Your task to perform on an android device: turn off location history Image 0: 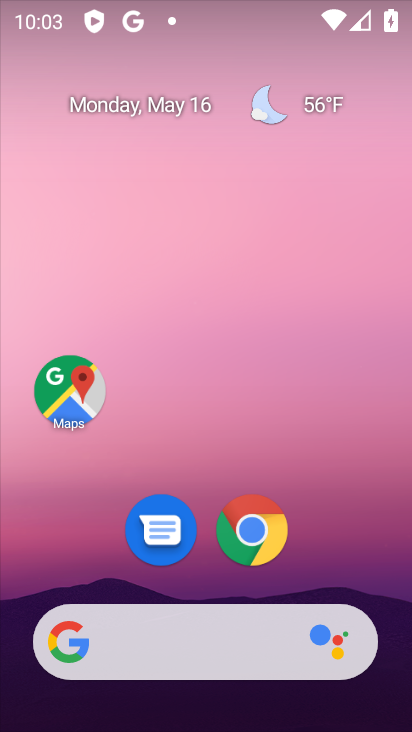
Step 0: drag from (335, 505) to (347, 156)
Your task to perform on an android device: turn off location history Image 1: 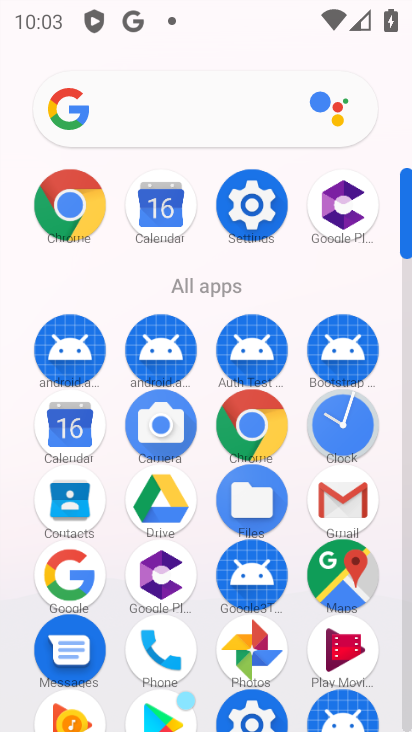
Step 1: click (265, 223)
Your task to perform on an android device: turn off location history Image 2: 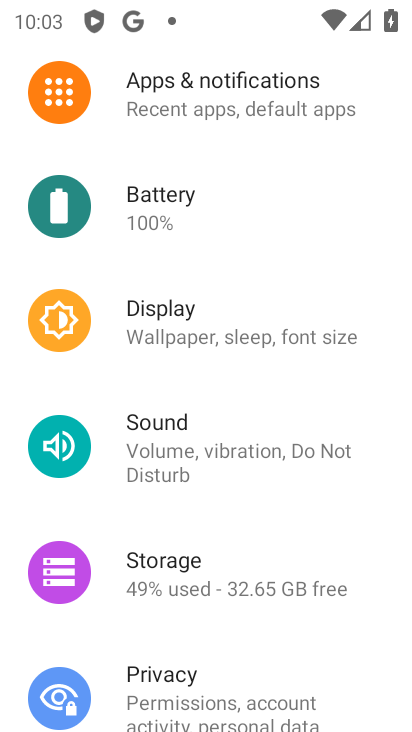
Step 2: drag from (310, 196) to (296, 428)
Your task to perform on an android device: turn off location history Image 3: 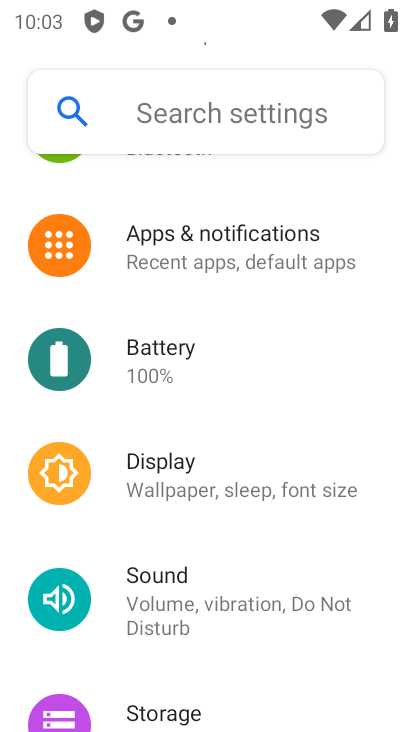
Step 3: drag from (387, 202) to (377, 460)
Your task to perform on an android device: turn off location history Image 4: 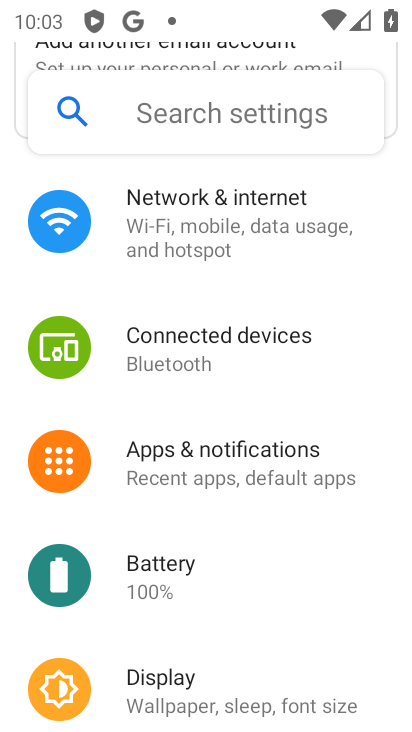
Step 4: drag from (356, 282) to (370, 564)
Your task to perform on an android device: turn off location history Image 5: 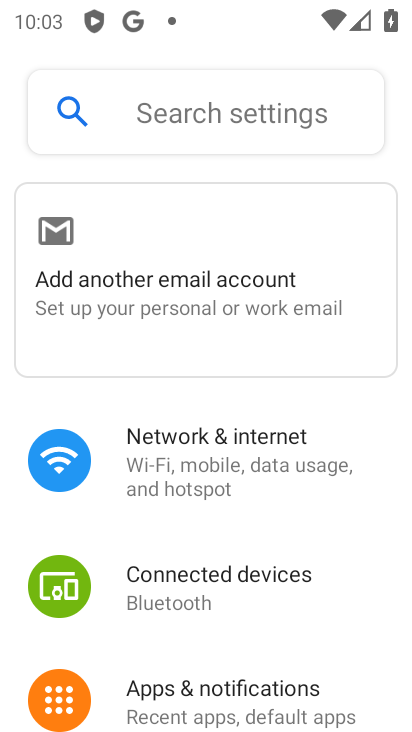
Step 5: drag from (357, 411) to (350, 603)
Your task to perform on an android device: turn off location history Image 6: 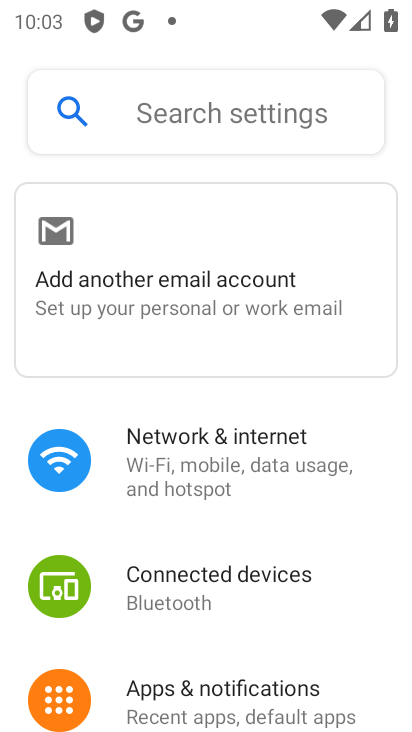
Step 6: drag from (338, 632) to (327, 408)
Your task to perform on an android device: turn off location history Image 7: 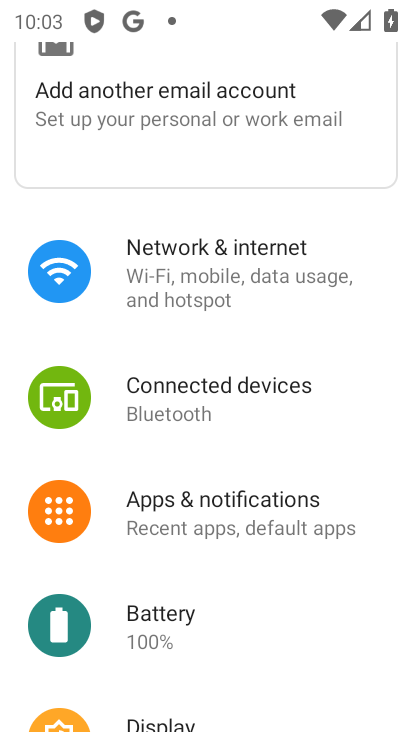
Step 7: drag from (300, 639) to (294, 440)
Your task to perform on an android device: turn off location history Image 8: 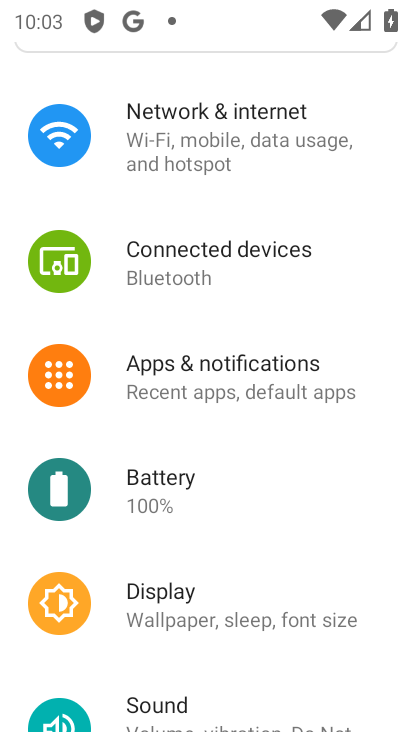
Step 8: drag from (355, 553) to (336, 238)
Your task to perform on an android device: turn off location history Image 9: 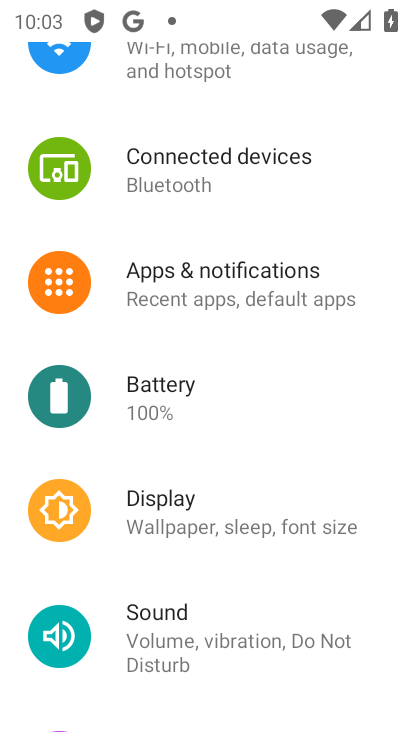
Step 9: drag from (307, 597) to (295, 351)
Your task to perform on an android device: turn off location history Image 10: 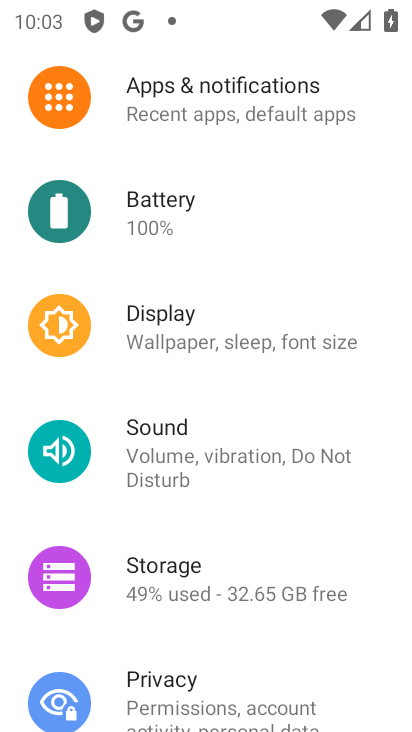
Step 10: drag from (291, 634) to (273, 362)
Your task to perform on an android device: turn off location history Image 11: 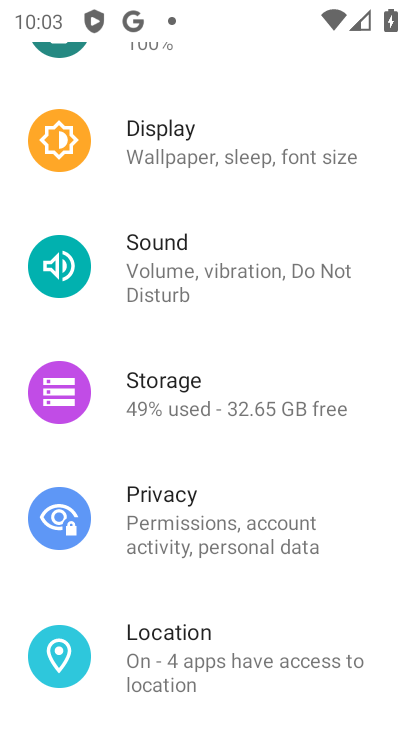
Step 11: drag from (301, 616) to (298, 401)
Your task to perform on an android device: turn off location history Image 12: 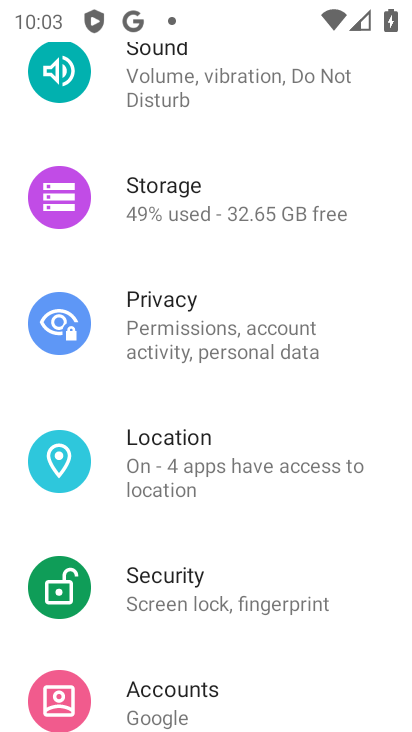
Step 12: click (243, 457)
Your task to perform on an android device: turn off location history Image 13: 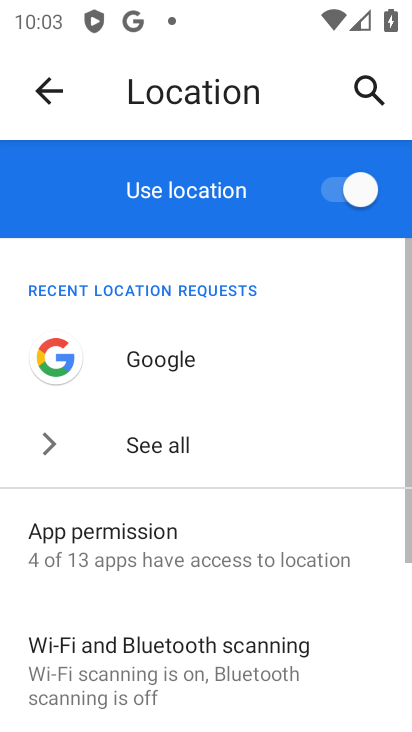
Step 13: drag from (267, 597) to (271, 383)
Your task to perform on an android device: turn off location history Image 14: 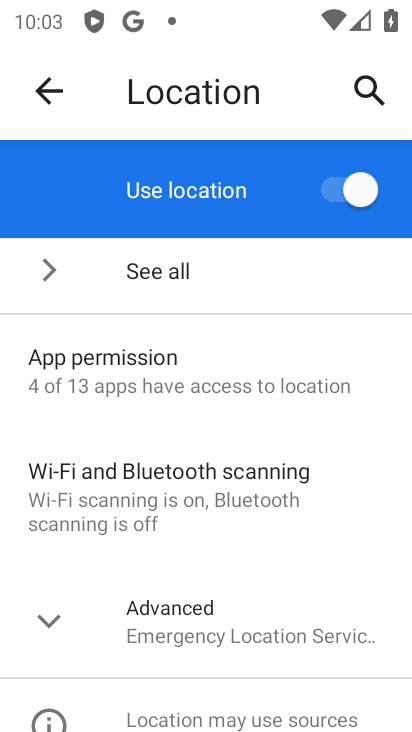
Step 14: drag from (274, 632) to (275, 417)
Your task to perform on an android device: turn off location history Image 15: 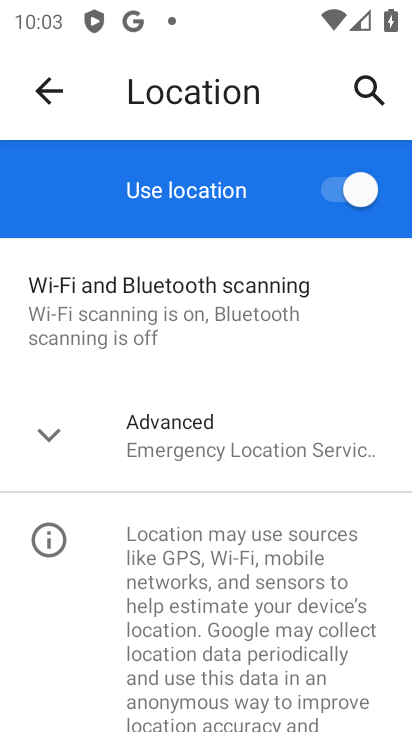
Step 15: click (260, 449)
Your task to perform on an android device: turn off location history Image 16: 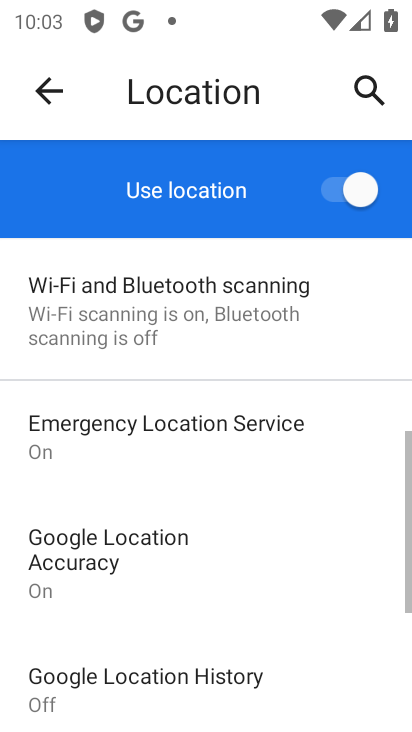
Step 16: drag from (255, 640) to (287, 412)
Your task to perform on an android device: turn off location history Image 17: 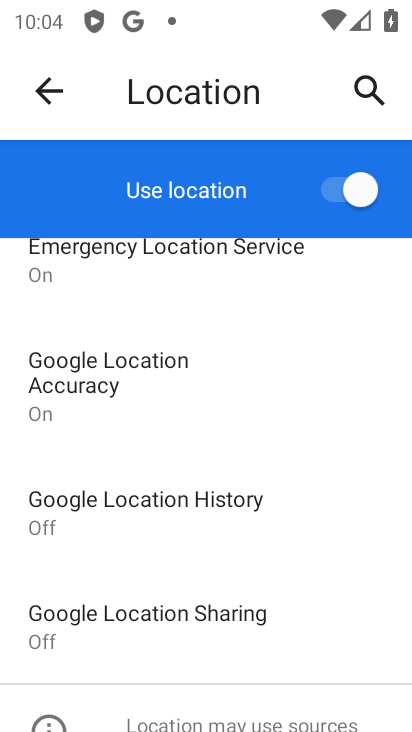
Step 17: drag from (310, 575) to (320, 454)
Your task to perform on an android device: turn off location history Image 18: 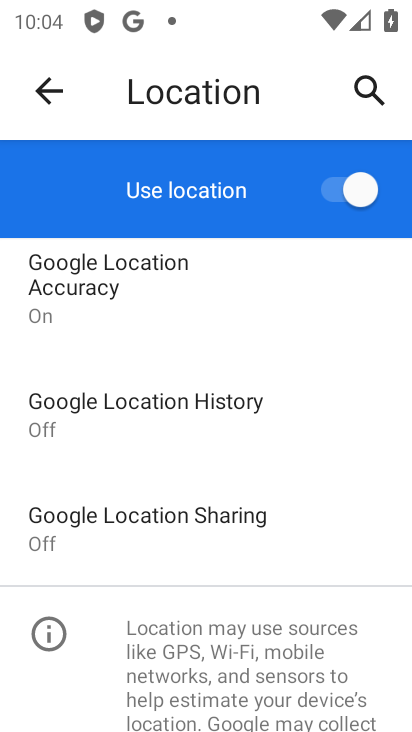
Step 18: click (230, 411)
Your task to perform on an android device: turn off location history Image 19: 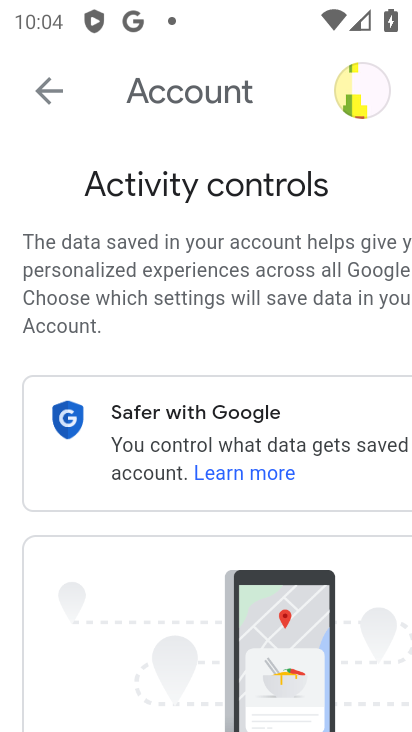
Step 19: drag from (163, 639) to (190, 381)
Your task to perform on an android device: turn off location history Image 20: 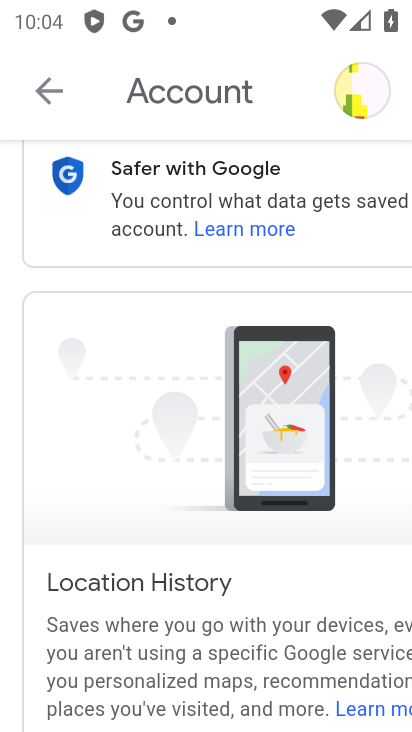
Step 20: drag from (174, 633) to (187, 411)
Your task to perform on an android device: turn off location history Image 21: 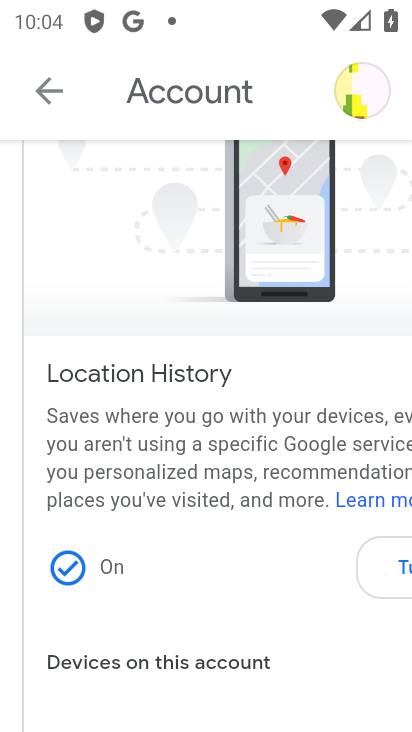
Step 21: click (388, 574)
Your task to perform on an android device: turn off location history Image 22: 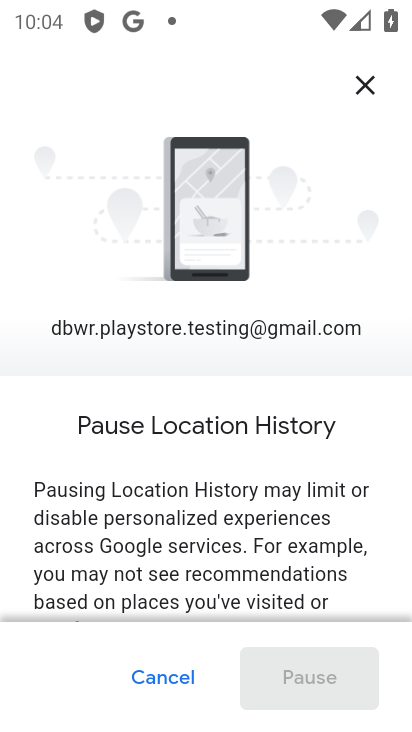
Step 22: drag from (289, 527) to (338, 284)
Your task to perform on an android device: turn off location history Image 23: 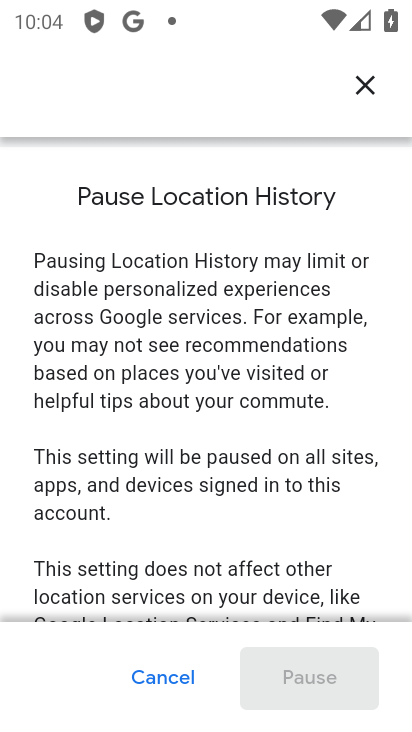
Step 23: drag from (299, 526) to (325, 333)
Your task to perform on an android device: turn off location history Image 24: 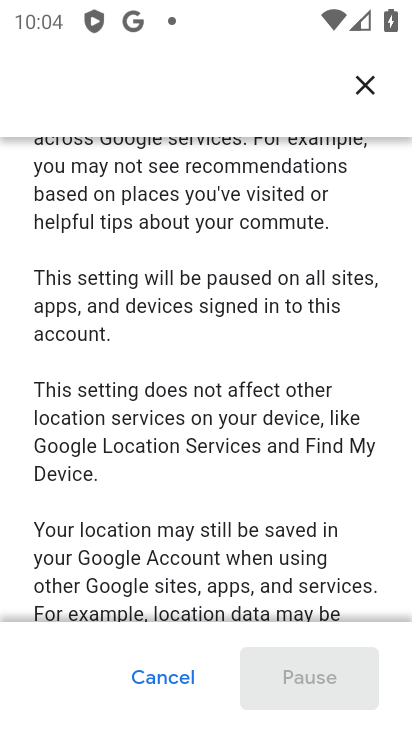
Step 24: drag from (317, 584) to (352, 339)
Your task to perform on an android device: turn off location history Image 25: 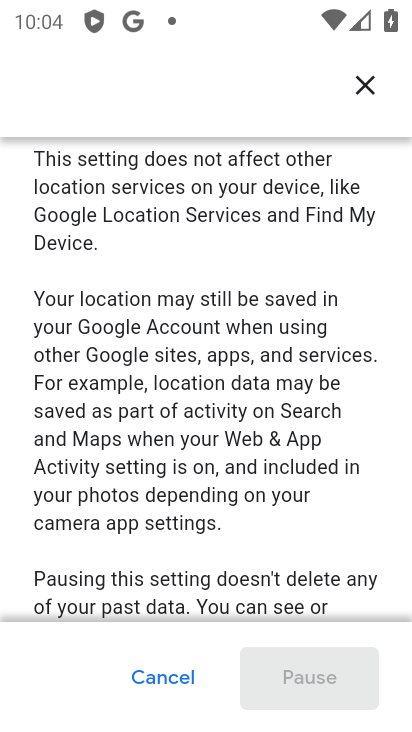
Step 25: drag from (272, 532) to (292, 360)
Your task to perform on an android device: turn off location history Image 26: 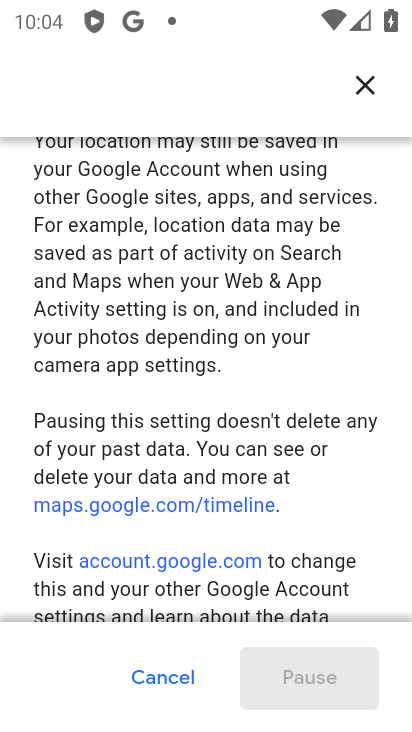
Step 26: drag from (286, 528) to (295, 375)
Your task to perform on an android device: turn off location history Image 27: 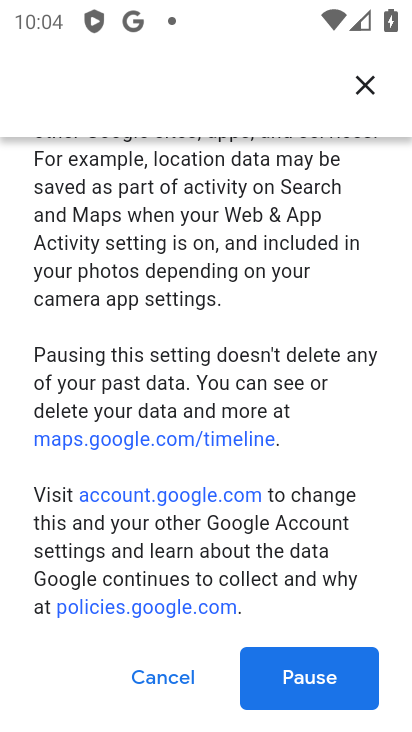
Step 27: click (284, 697)
Your task to perform on an android device: turn off location history Image 28: 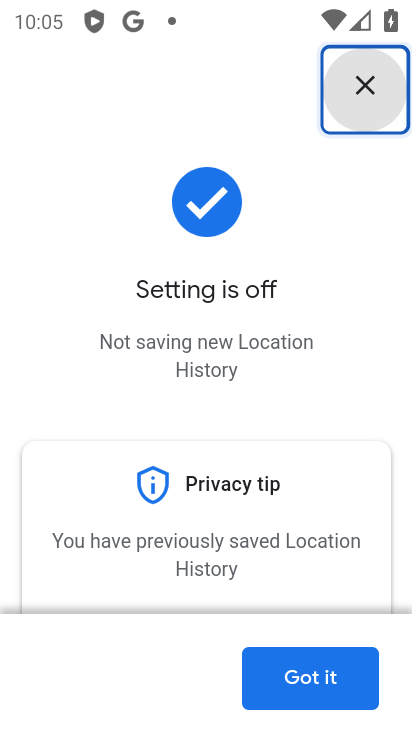
Step 28: task complete